Your task to perform on an android device: turn on javascript in the chrome app Image 0: 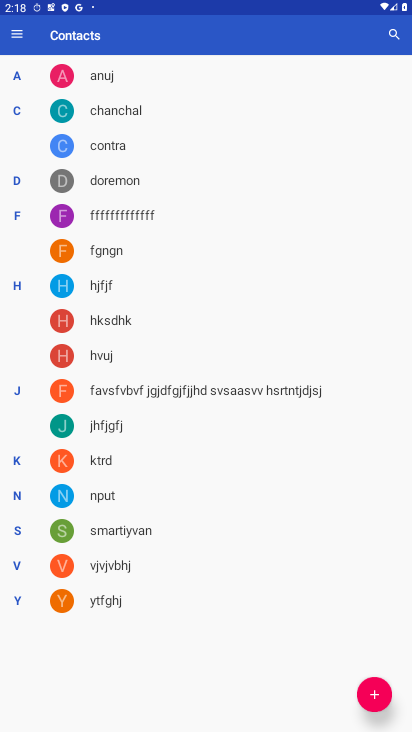
Step 0: press home button
Your task to perform on an android device: turn on javascript in the chrome app Image 1: 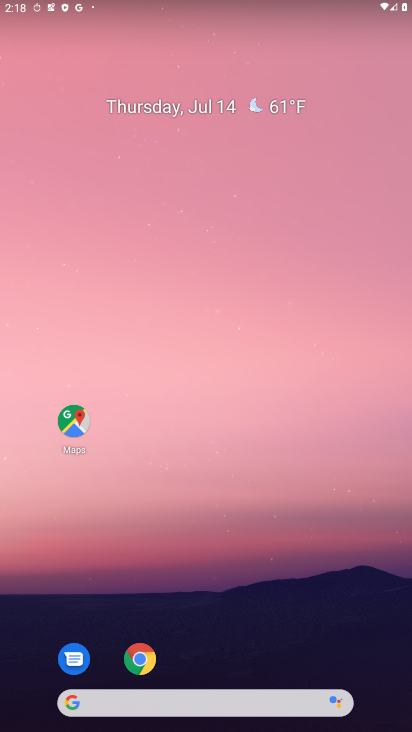
Step 1: drag from (237, 667) to (232, 111)
Your task to perform on an android device: turn on javascript in the chrome app Image 2: 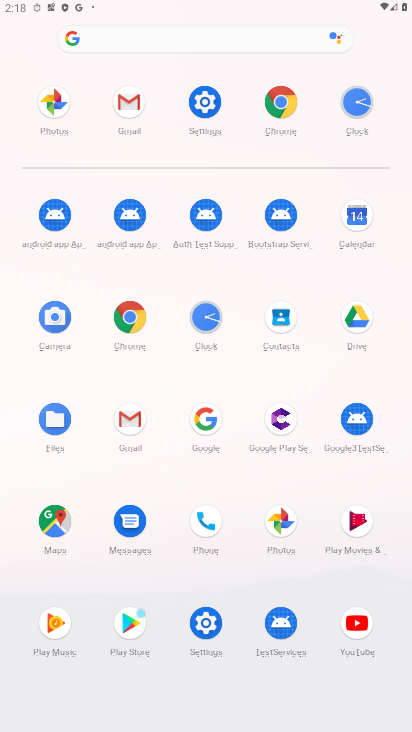
Step 2: click (137, 316)
Your task to perform on an android device: turn on javascript in the chrome app Image 3: 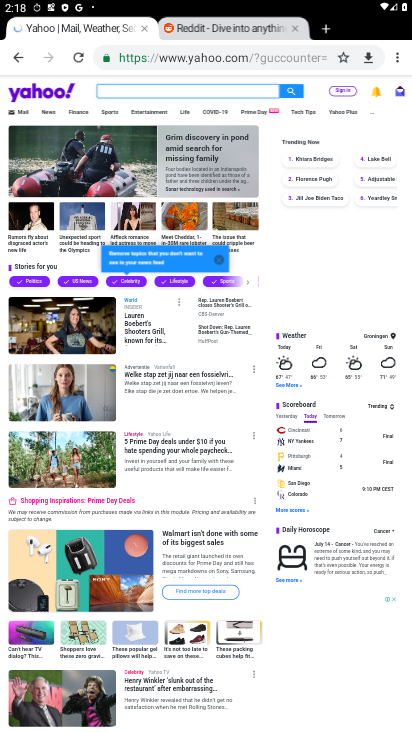
Step 3: drag from (397, 61) to (272, 425)
Your task to perform on an android device: turn on javascript in the chrome app Image 4: 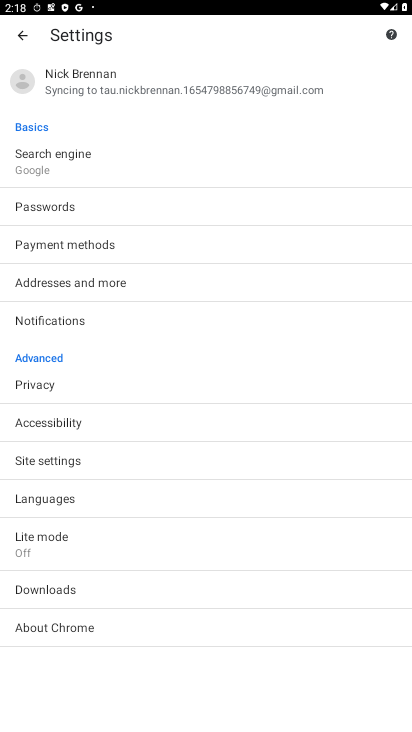
Step 4: click (42, 461)
Your task to perform on an android device: turn on javascript in the chrome app Image 5: 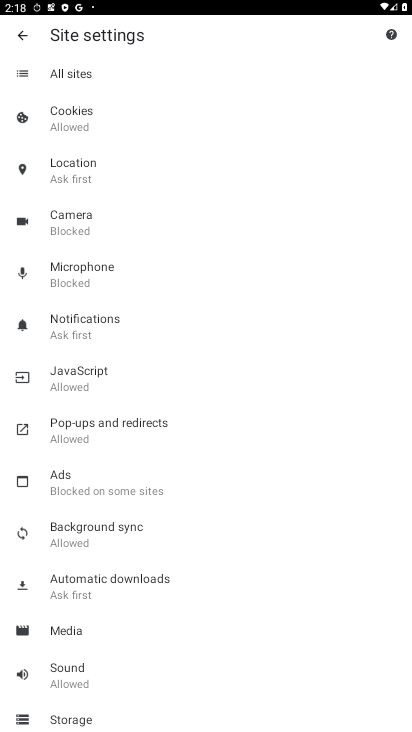
Step 5: click (62, 389)
Your task to perform on an android device: turn on javascript in the chrome app Image 6: 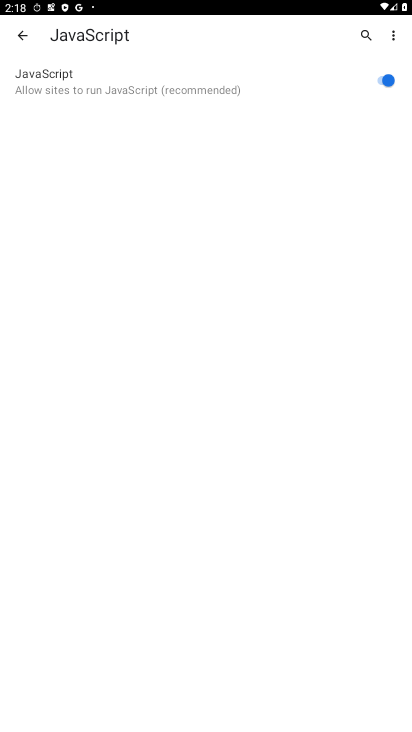
Step 6: task complete